Your task to perform on an android device: find photos in the google photos app Image 0: 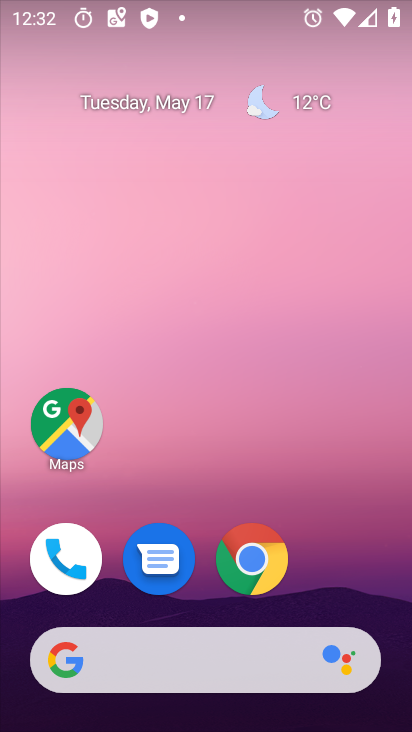
Step 0: drag from (312, 382) to (323, 134)
Your task to perform on an android device: find photos in the google photos app Image 1: 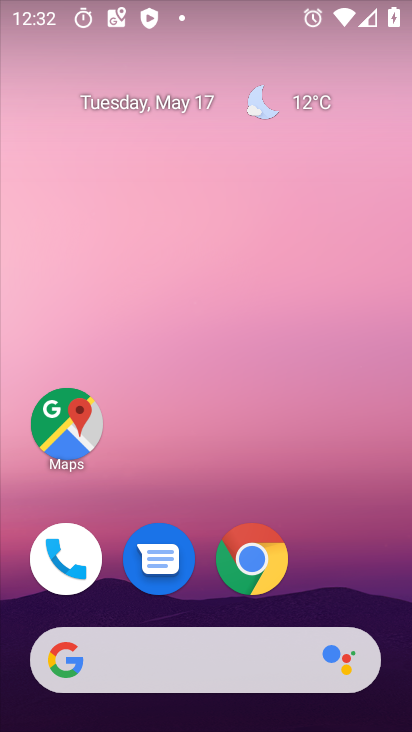
Step 1: drag from (326, 373) to (329, 80)
Your task to perform on an android device: find photos in the google photos app Image 2: 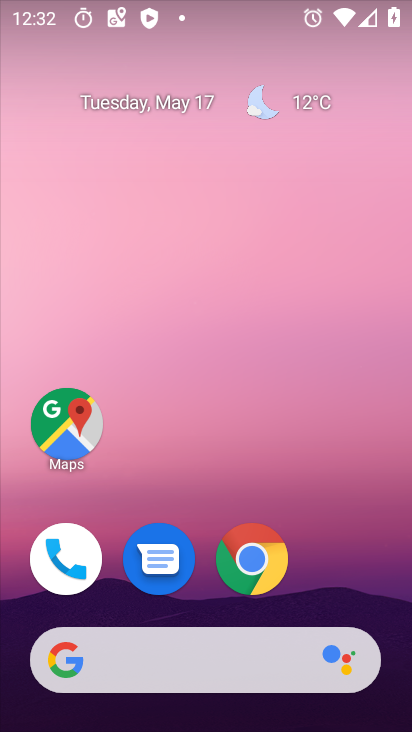
Step 2: drag from (327, 501) to (327, 77)
Your task to perform on an android device: find photos in the google photos app Image 3: 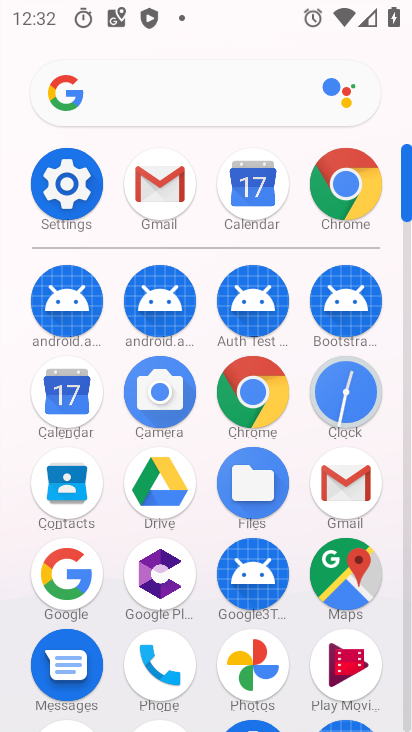
Step 3: click (266, 651)
Your task to perform on an android device: find photos in the google photos app Image 4: 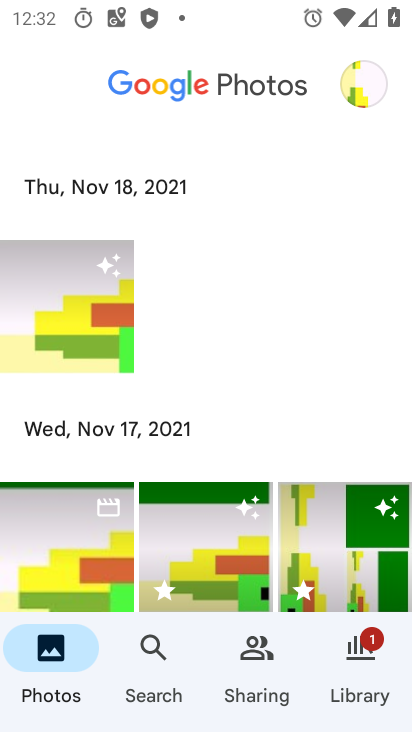
Step 4: task complete